Your task to perform on an android device: Go to Yahoo.com Image 0: 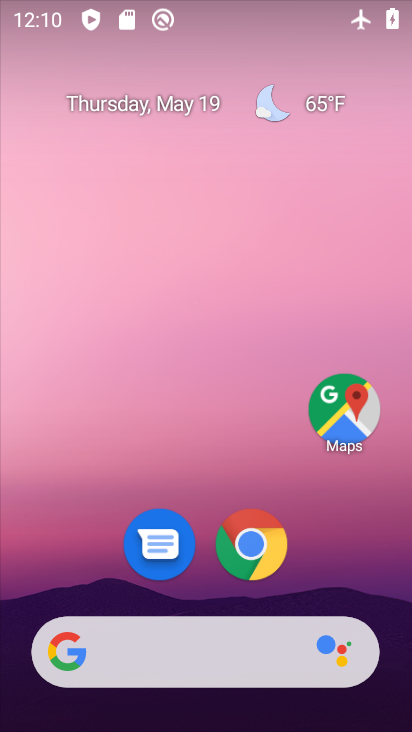
Step 0: drag from (368, 548) to (355, 151)
Your task to perform on an android device: Go to Yahoo.com Image 1: 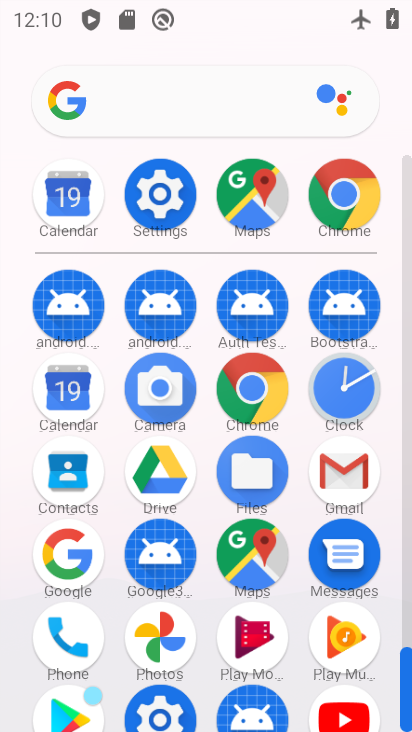
Step 1: click (270, 395)
Your task to perform on an android device: Go to Yahoo.com Image 2: 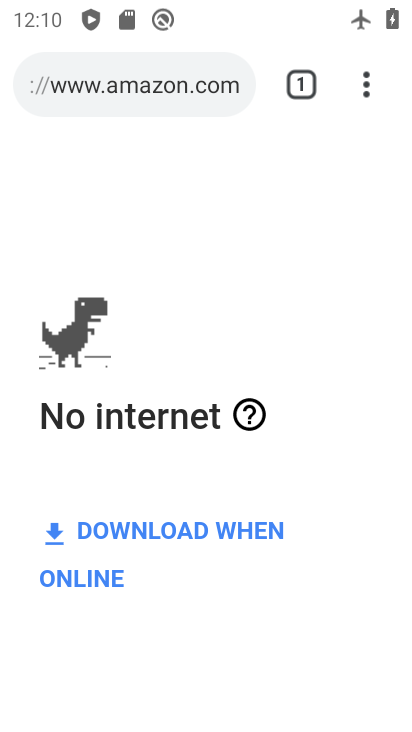
Step 2: press back button
Your task to perform on an android device: Go to Yahoo.com Image 3: 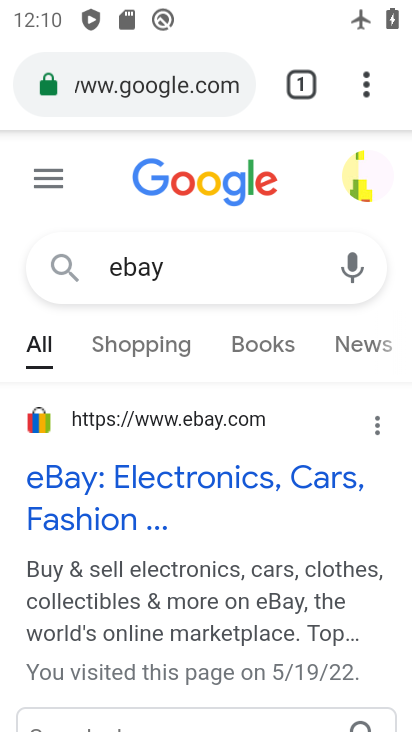
Step 3: press back button
Your task to perform on an android device: Go to Yahoo.com Image 4: 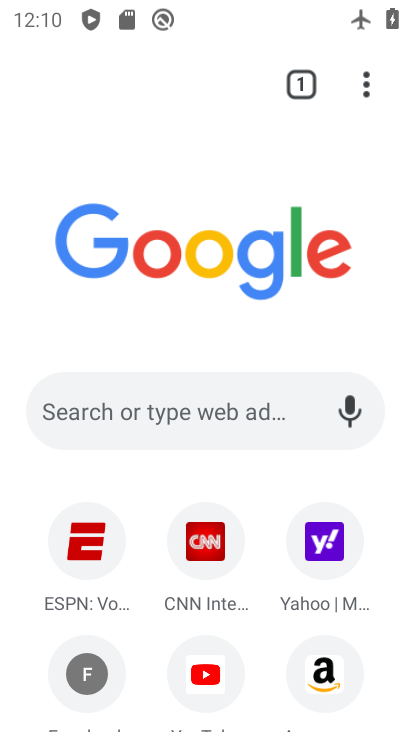
Step 4: drag from (364, 486) to (346, 216)
Your task to perform on an android device: Go to Yahoo.com Image 5: 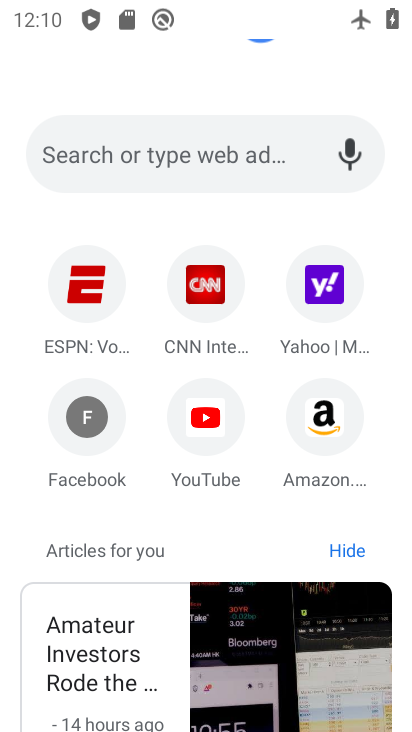
Step 5: click (334, 298)
Your task to perform on an android device: Go to Yahoo.com Image 6: 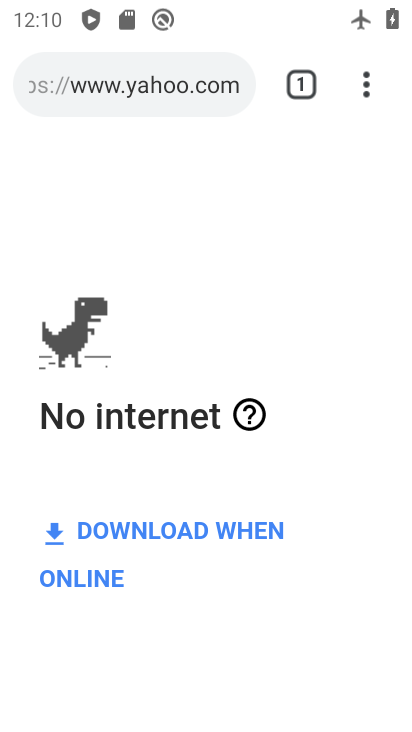
Step 6: task complete